Your task to perform on an android device: turn pop-ups on in chrome Image 0: 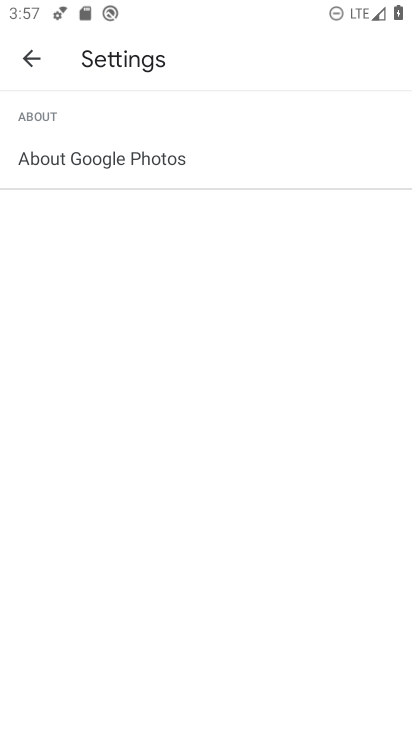
Step 0: press home button
Your task to perform on an android device: turn pop-ups on in chrome Image 1: 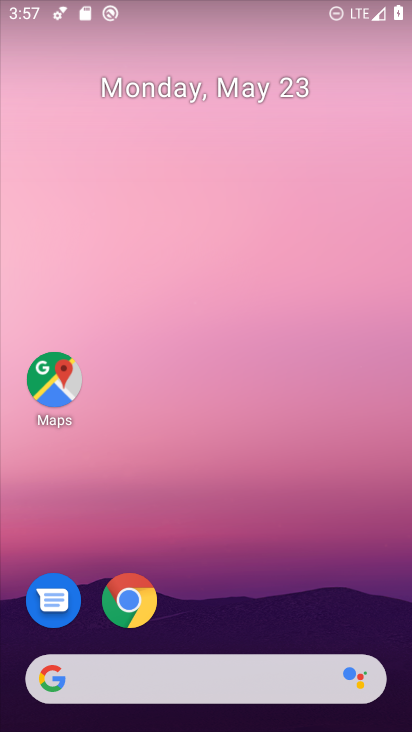
Step 1: click (126, 600)
Your task to perform on an android device: turn pop-ups on in chrome Image 2: 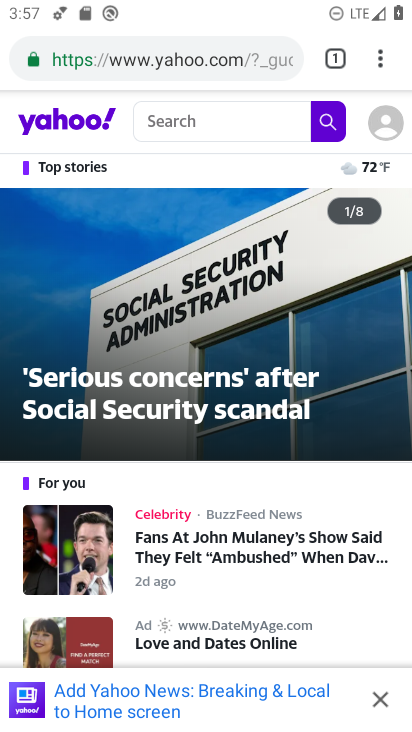
Step 2: click (385, 59)
Your task to perform on an android device: turn pop-ups on in chrome Image 3: 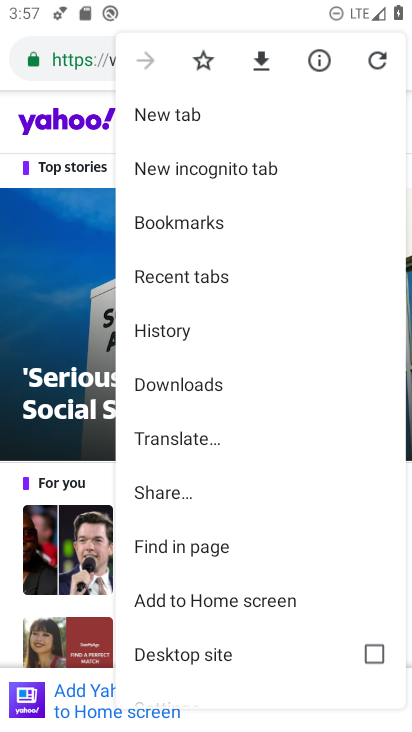
Step 3: drag from (280, 637) to (236, 193)
Your task to perform on an android device: turn pop-ups on in chrome Image 4: 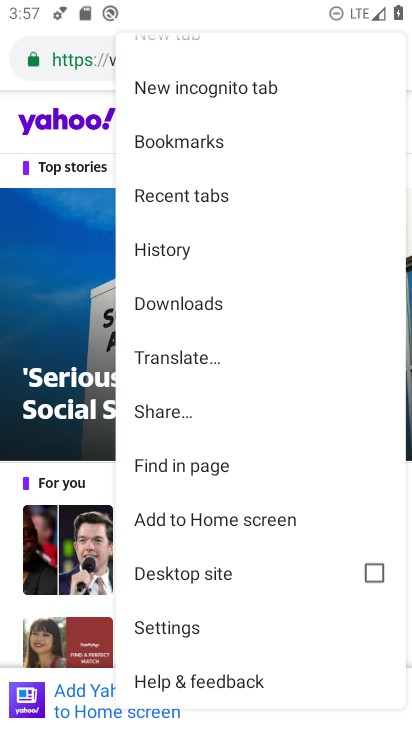
Step 4: click (178, 632)
Your task to perform on an android device: turn pop-ups on in chrome Image 5: 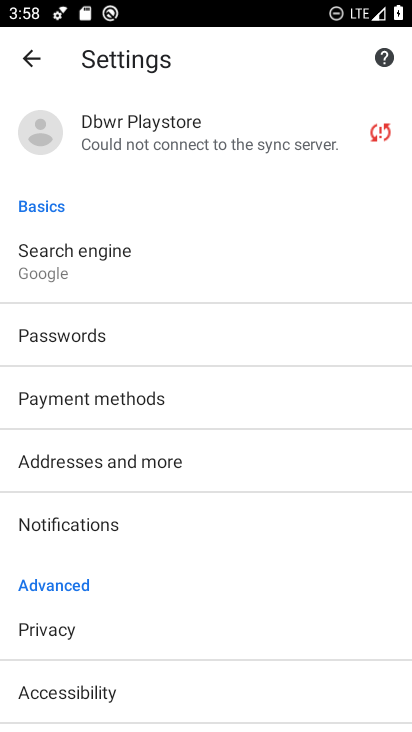
Step 5: drag from (178, 632) to (169, 194)
Your task to perform on an android device: turn pop-ups on in chrome Image 6: 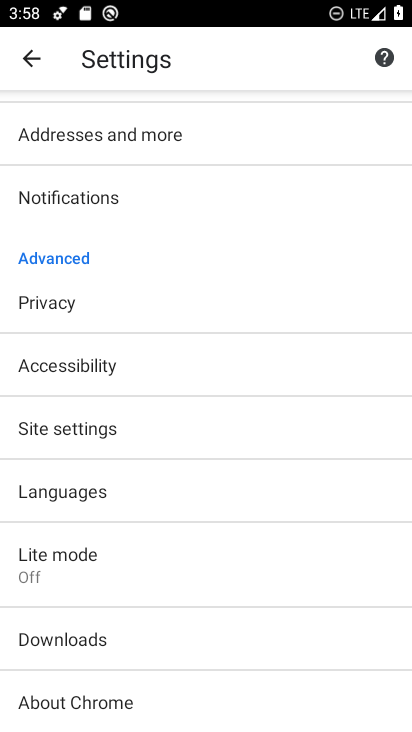
Step 6: click (67, 438)
Your task to perform on an android device: turn pop-ups on in chrome Image 7: 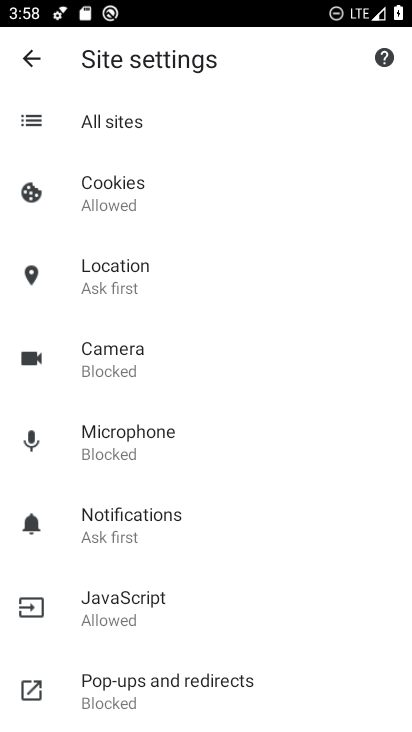
Step 7: click (171, 682)
Your task to perform on an android device: turn pop-ups on in chrome Image 8: 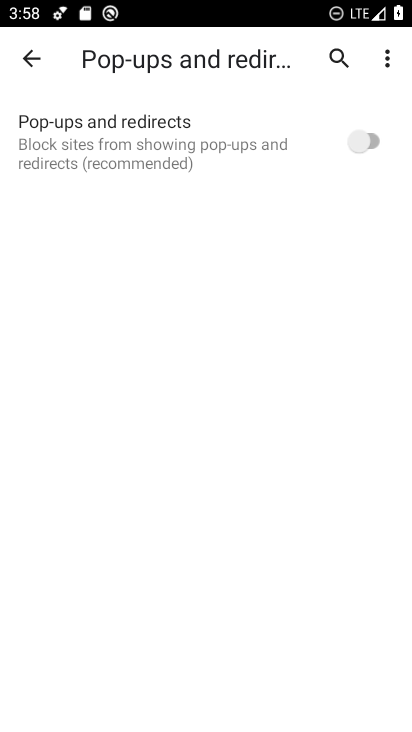
Step 8: click (358, 147)
Your task to perform on an android device: turn pop-ups on in chrome Image 9: 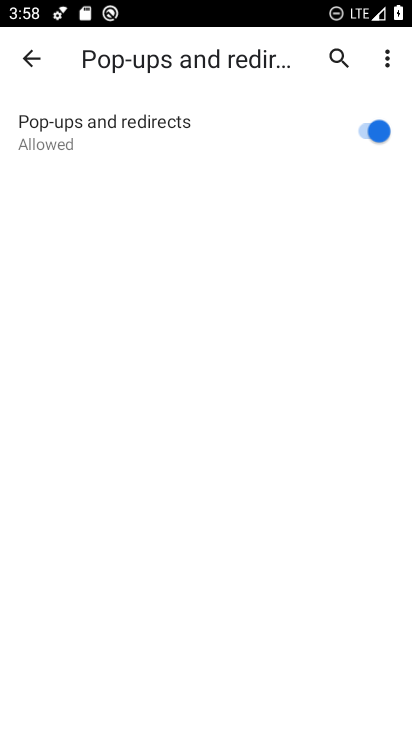
Step 9: task complete